Your task to perform on an android device: Open the calendar app, open the side menu, and click the "Day" option Image 0: 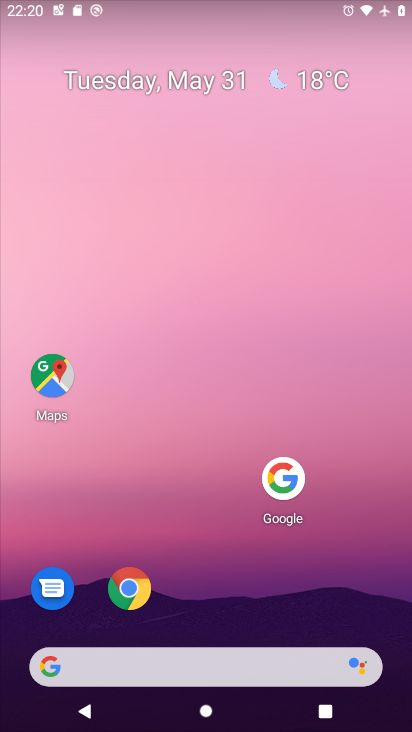
Step 0: press home button
Your task to perform on an android device: Open the calendar app, open the side menu, and click the "Day" option Image 1: 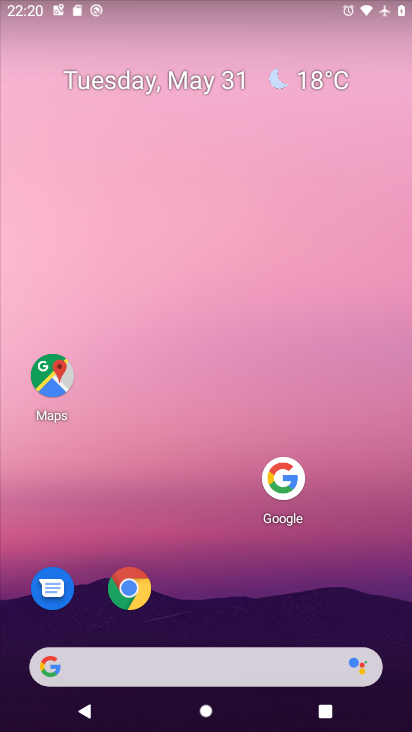
Step 1: drag from (142, 670) to (295, 92)
Your task to perform on an android device: Open the calendar app, open the side menu, and click the "Day" option Image 2: 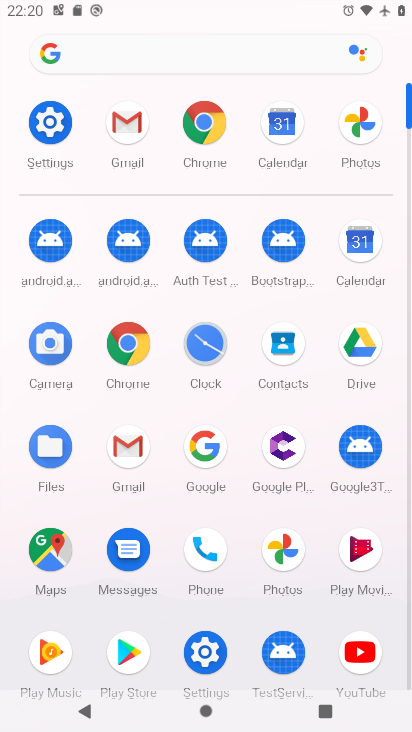
Step 2: click (278, 134)
Your task to perform on an android device: Open the calendar app, open the side menu, and click the "Day" option Image 3: 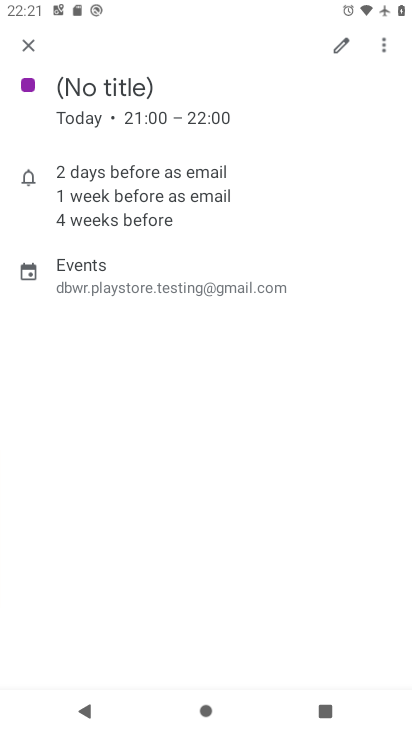
Step 3: click (29, 46)
Your task to perform on an android device: Open the calendar app, open the side menu, and click the "Day" option Image 4: 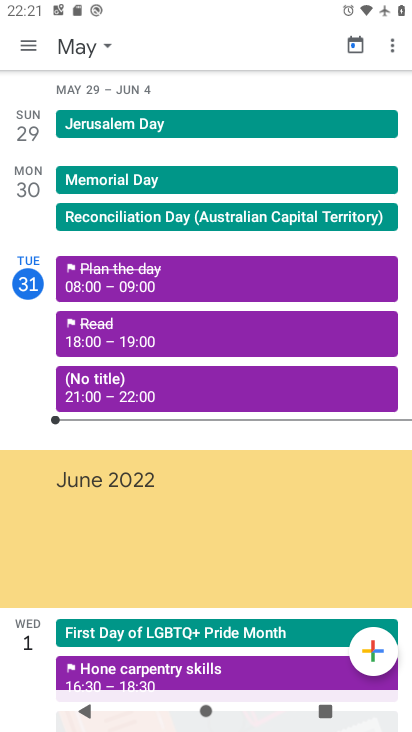
Step 4: click (28, 47)
Your task to perform on an android device: Open the calendar app, open the side menu, and click the "Day" option Image 5: 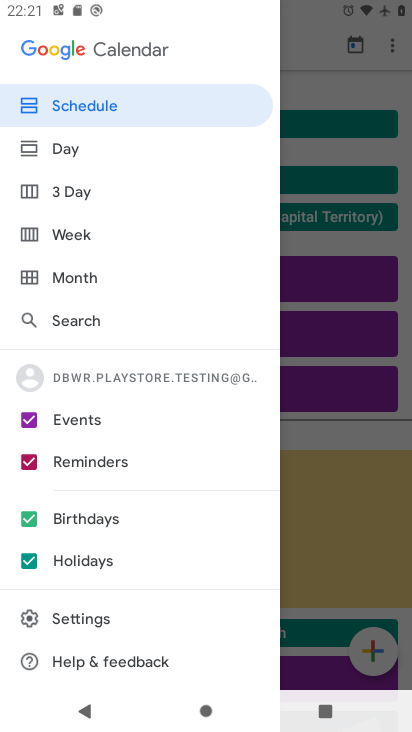
Step 5: click (67, 150)
Your task to perform on an android device: Open the calendar app, open the side menu, and click the "Day" option Image 6: 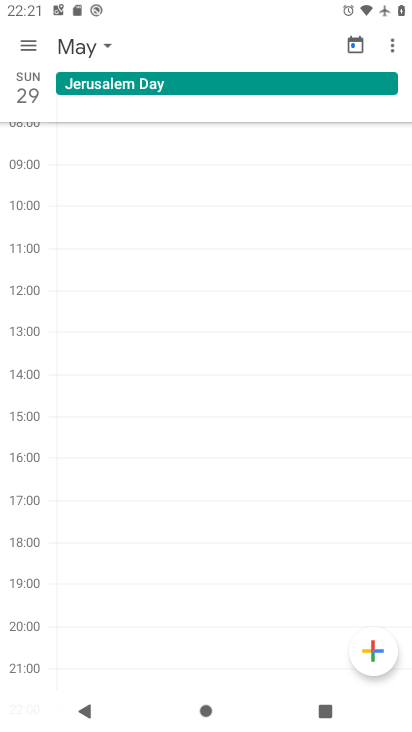
Step 6: task complete